Your task to perform on an android device: turn smart compose on in the gmail app Image 0: 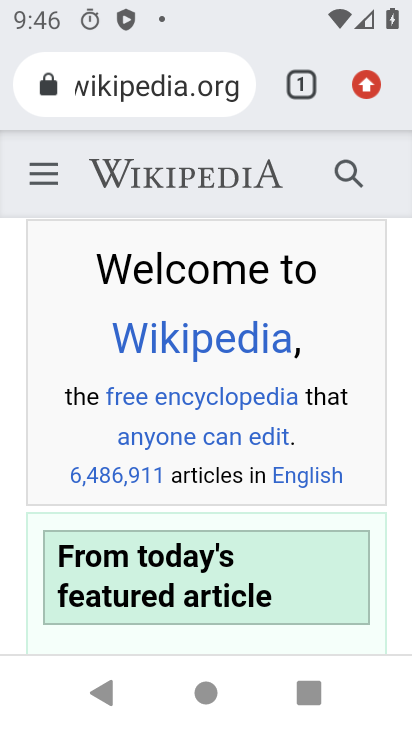
Step 0: press home button
Your task to perform on an android device: turn smart compose on in the gmail app Image 1: 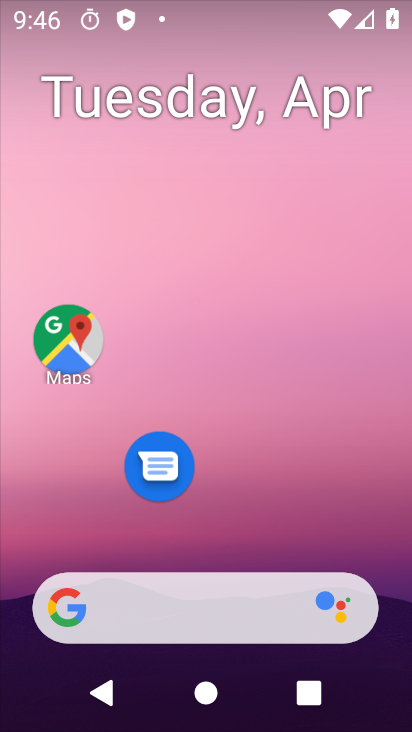
Step 1: press home button
Your task to perform on an android device: turn smart compose on in the gmail app Image 2: 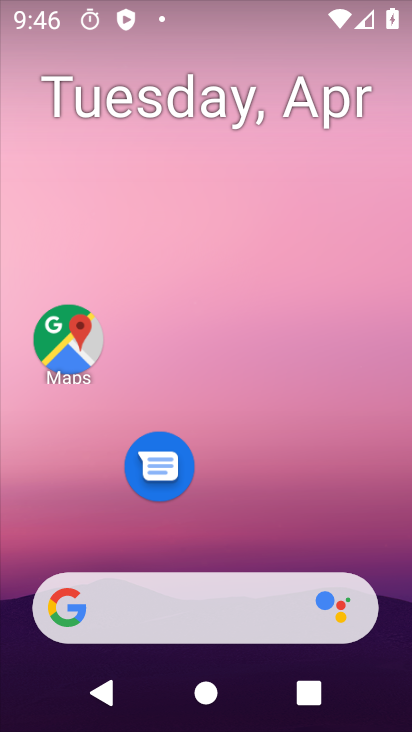
Step 2: drag from (343, 534) to (282, 144)
Your task to perform on an android device: turn smart compose on in the gmail app Image 3: 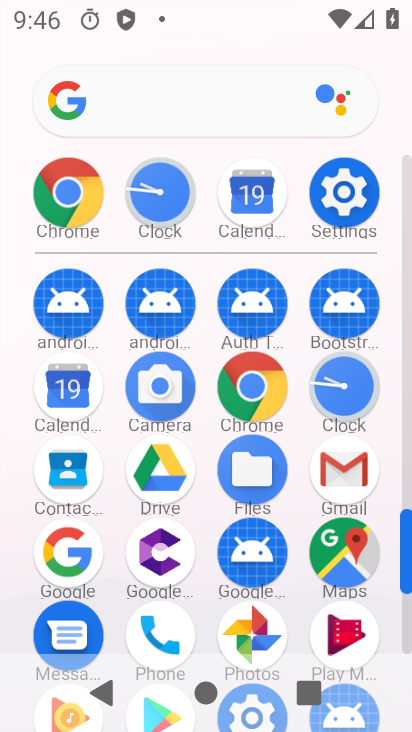
Step 3: click (352, 472)
Your task to perform on an android device: turn smart compose on in the gmail app Image 4: 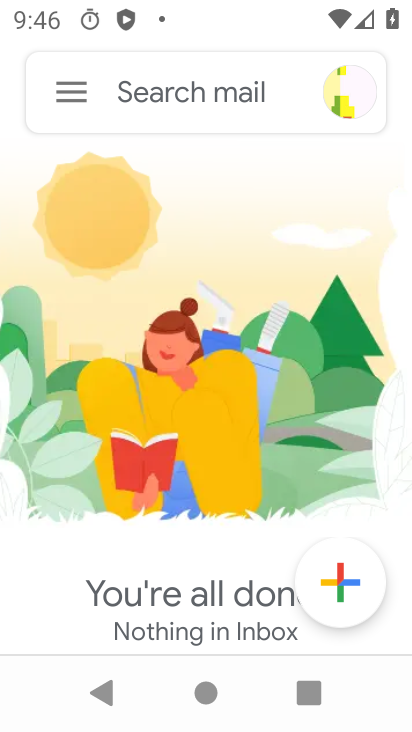
Step 4: click (71, 108)
Your task to perform on an android device: turn smart compose on in the gmail app Image 5: 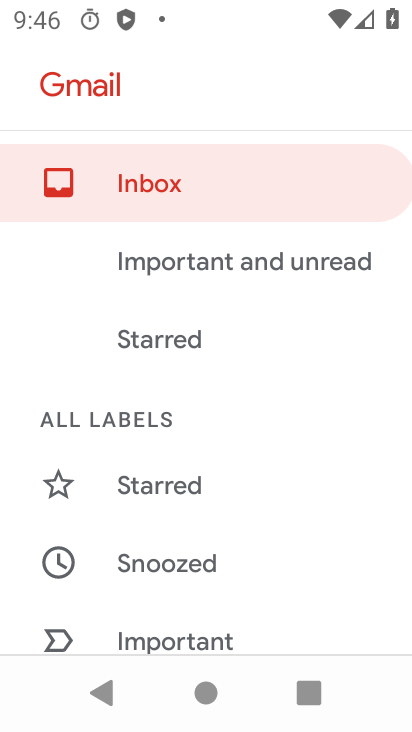
Step 5: drag from (225, 584) to (209, 153)
Your task to perform on an android device: turn smart compose on in the gmail app Image 6: 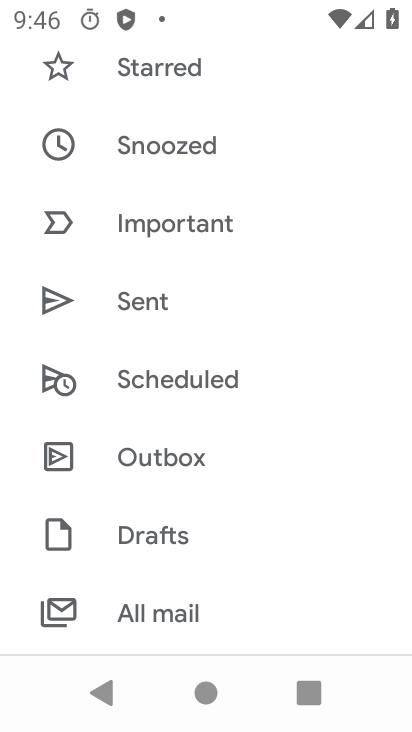
Step 6: drag from (259, 585) to (255, 300)
Your task to perform on an android device: turn smart compose on in the gmail app Image 7: 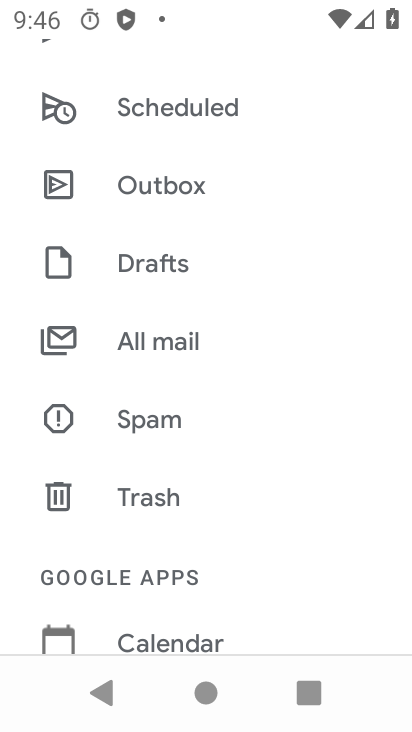
Step 7: drag from (251, 564) to (263, 213)
Your task to perform on an android device: turn smart compose on in the gmail app Image 8: 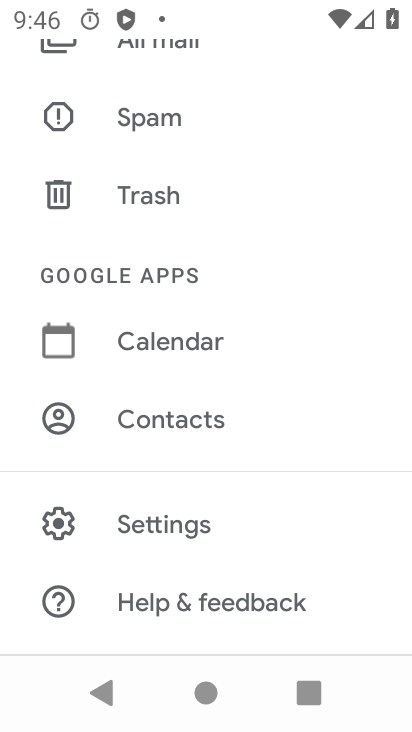
Step 8: click (260, 539)
Your task to perform on an android device: turn smart compose on in the gmail app Image 9: 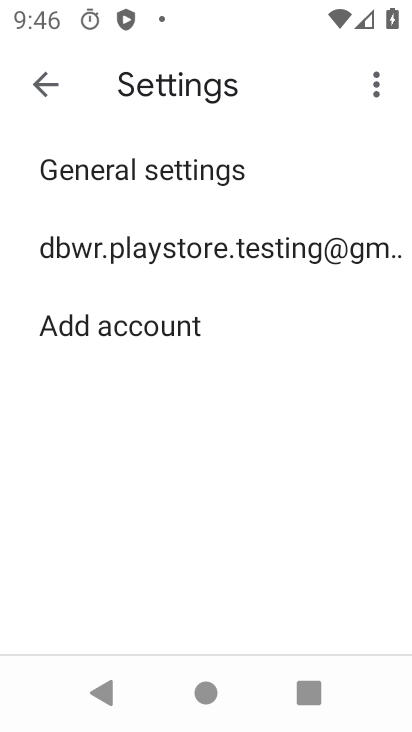
Step 9: click (182, 171)
Your task to perform on an android device: turn smart compose on in the gmail app Image 10: 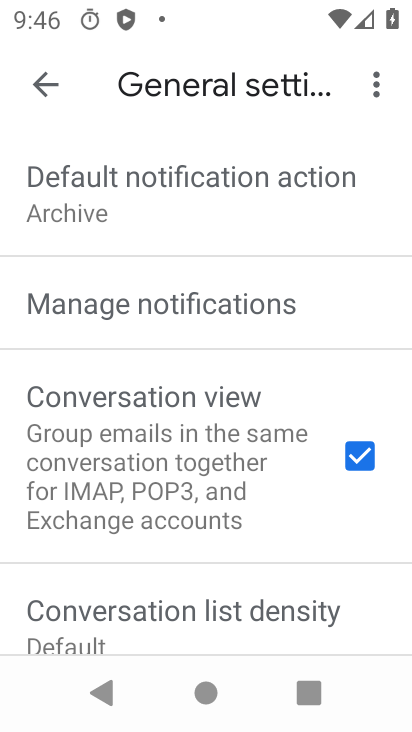
Step 10: click (267, 320)
Your task to perform on an android device: turn smart compose on in the gmail app Image 11: 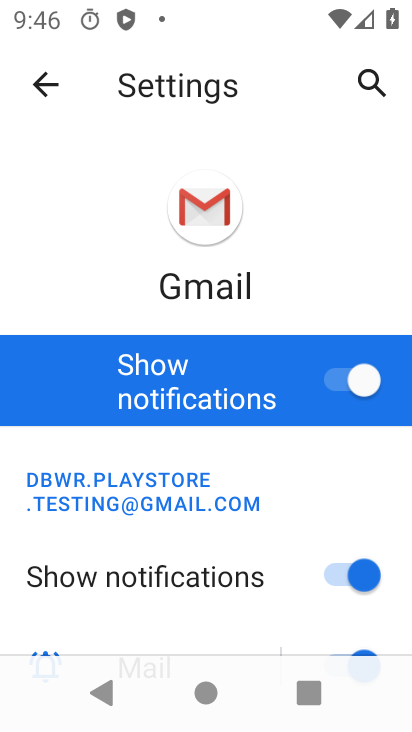
Step 11: click (382, 391)
Your task to perform on an android device: turn smart compose on in the gmail app Image 12: 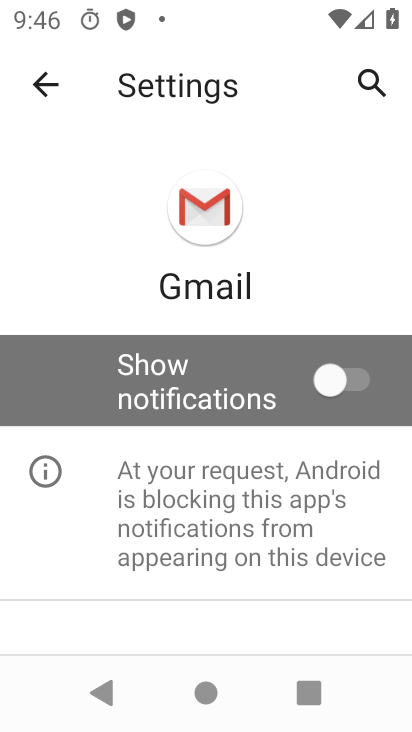
Step 12: task complete